Your task to perform on an android device: toggle wifi Image 0: 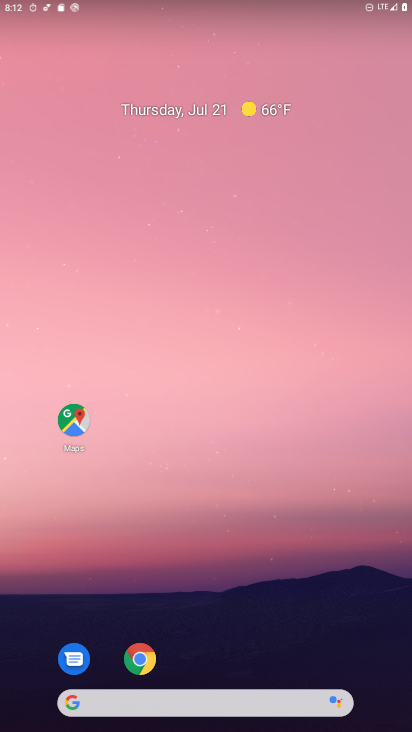
Step 0: drag from (214, 630) to (317, 91)
Your task to perform on an android device: toggle wifi Image 1: 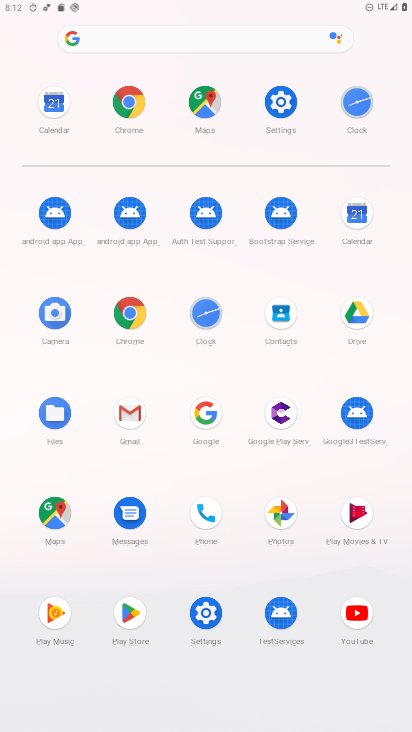
Step 1: click (283, 102)
Your task to perform on an android device: toggle wifi Image 2: 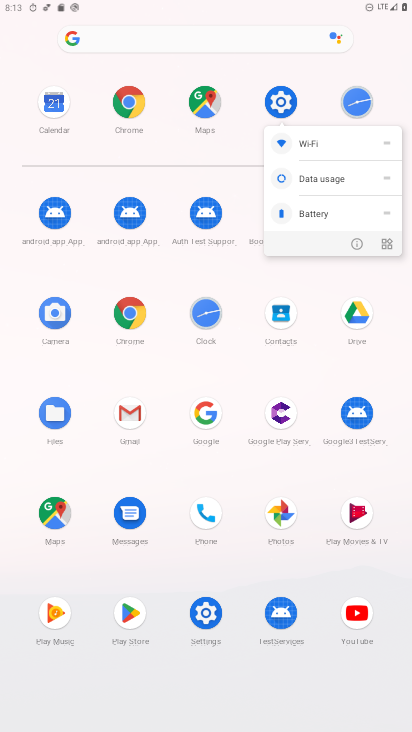
Step 2: click (312, 143)
Your task to perform on an android device: toggle wifi Image 3: 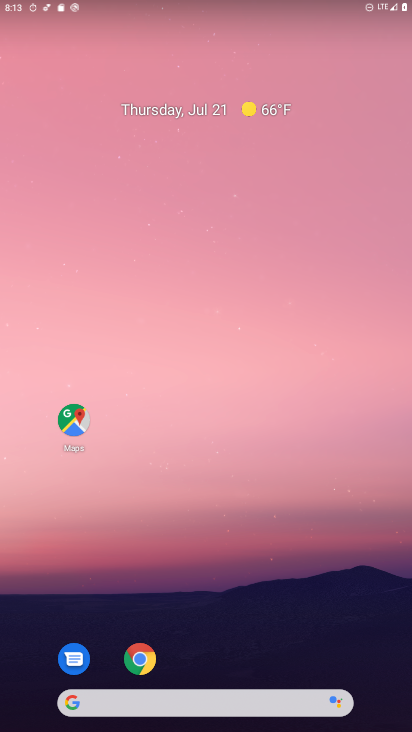
Step 3: drag from (200, 640) to (261, 178)
Your task to perform on an android device: toggle wifi Image 4: 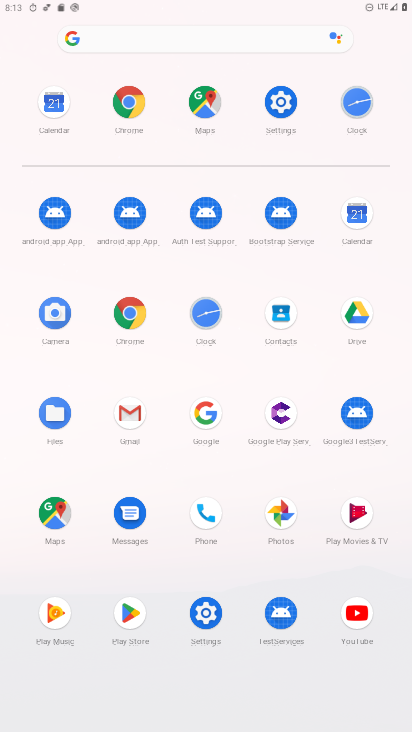
Step 4: click (273, 94)
Your task to perform on an android device: toggle wifi Image 5: 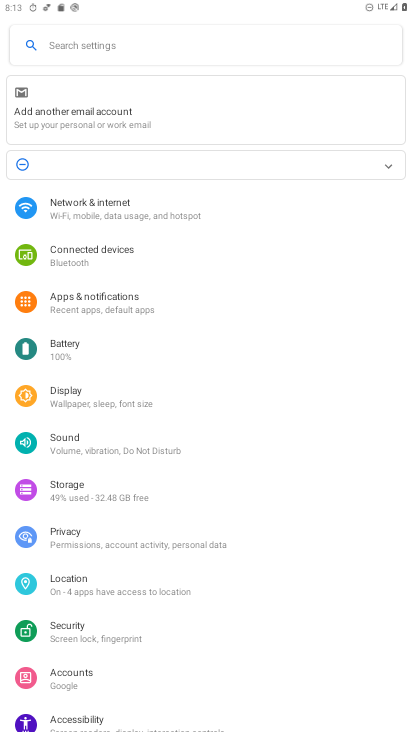
Step 5: click (137, 208)
Your task to perform on an android device: toggle wifi Image 6: 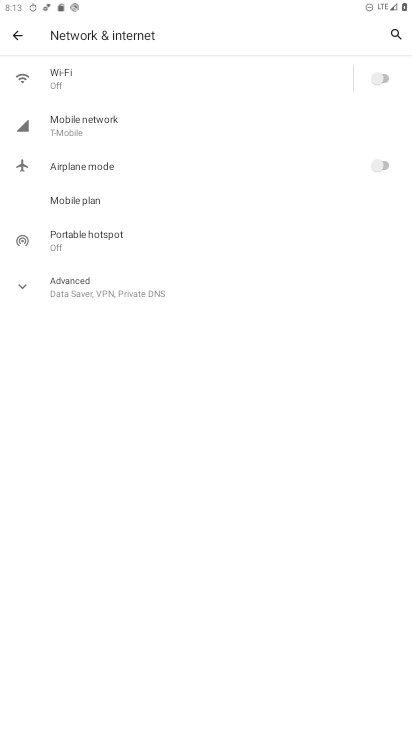
Step 6: click (128, 80)
Your task to perform on an android device: toggle wifi Image 7: 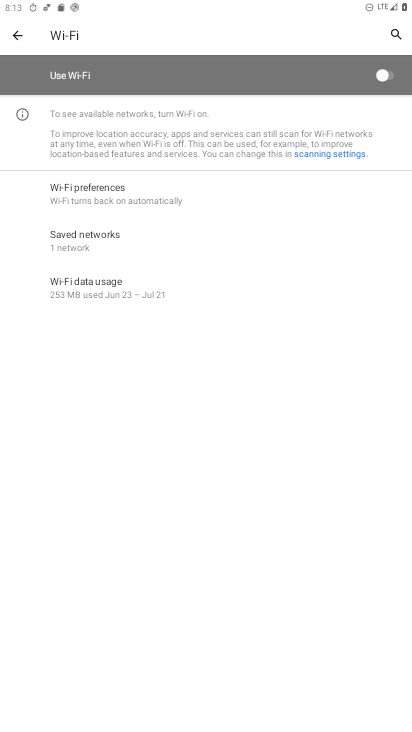
Step 7: click (273, 78)
Your task to perform on an android device: toggle wifi Image 8: 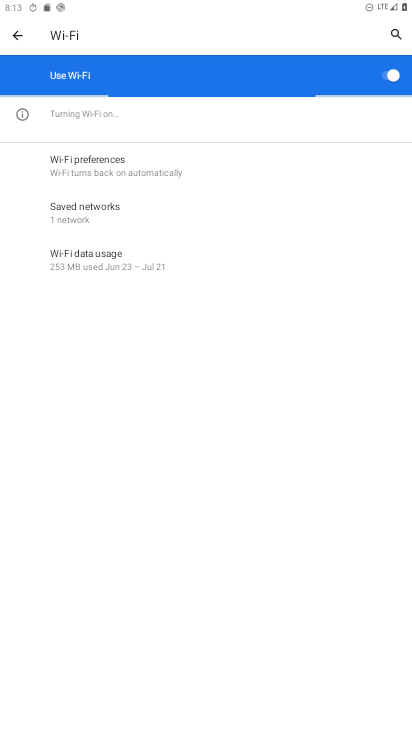
Step 8: task complete